Your task to perform on an android device: open chrome privacy settings Image 0: 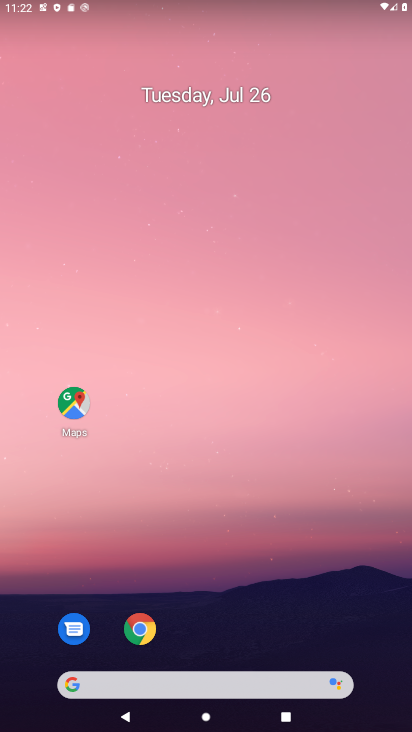
Step 0: drag from (240, 657) to (264, 33)
Your task to perform on an android device: open chrome privacy settings Image 1: 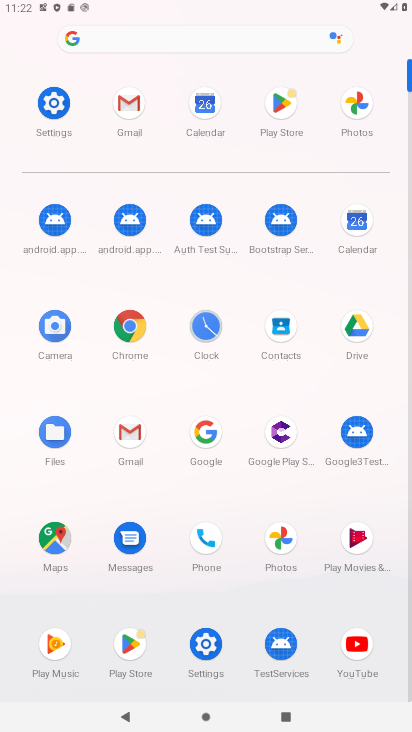
Step 1: click (46, 111)
Your task to perform on an android device: open chrome privacy settings Image 2: 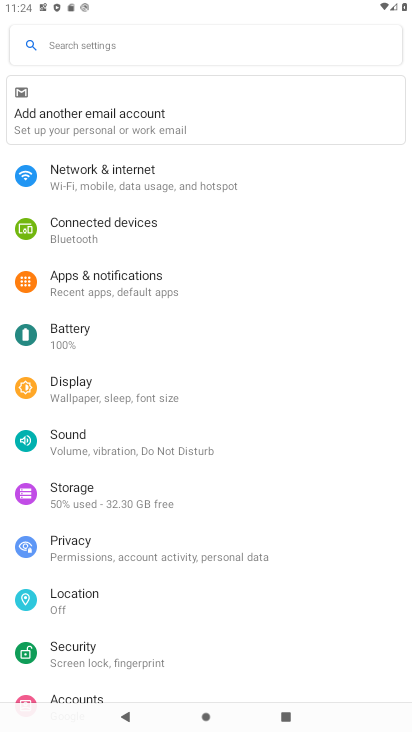
Step 2: press home button
Your task to perform on an android device: open chrome privacy settings Image 3: 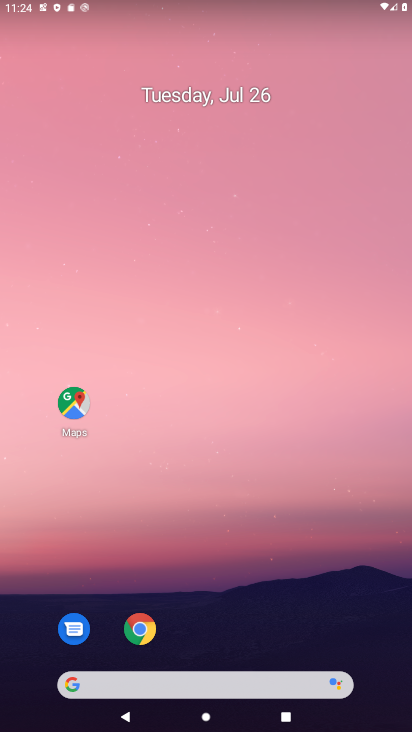
Step 3: click (143, 628)
Your task to perform on an android device: open chrome privacy settings Image 4: 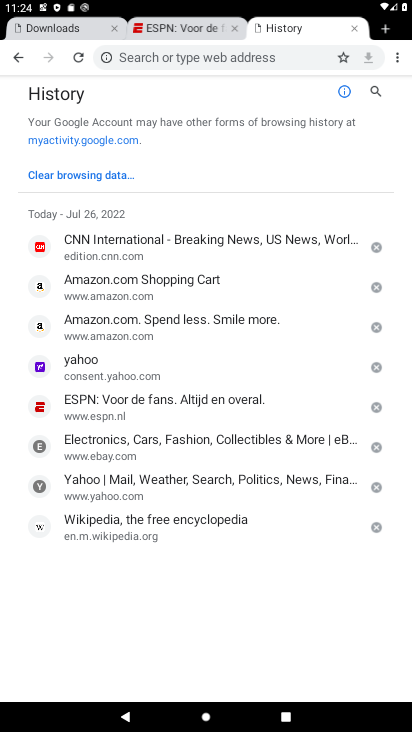
Step 4: click (387, 35)
Your task to perform on an android device: open chrome privacy settings Image 5: 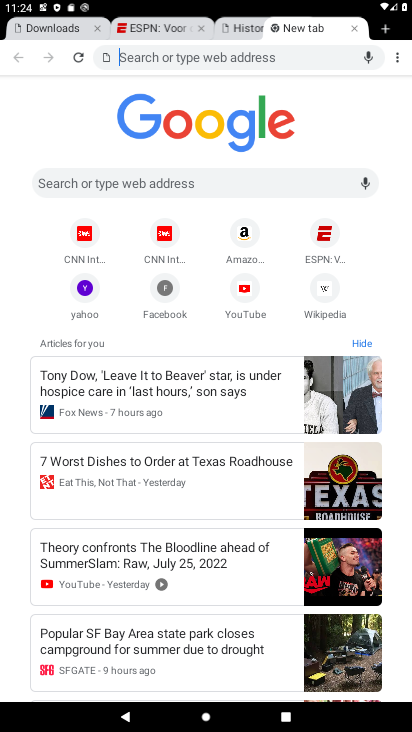
Step 5: click (404, 64)
Your task to perform on an android device: open chrome privacy settings Image 6: 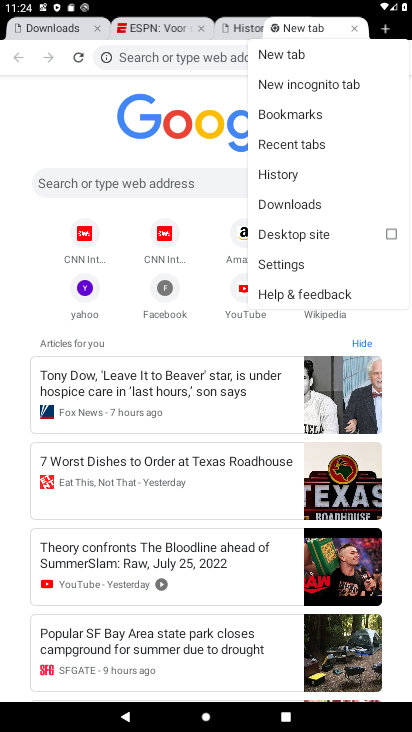
Step 6: click (275, 265)
Your task to perform on an android device: open chrome privacy settings Image 7: 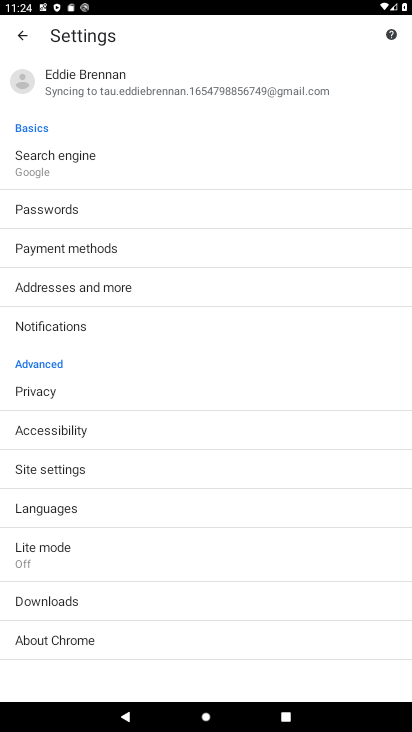
Step 7: click (79, 401)
Your task to perform on an android device: open chrome privacy settings Image 8: 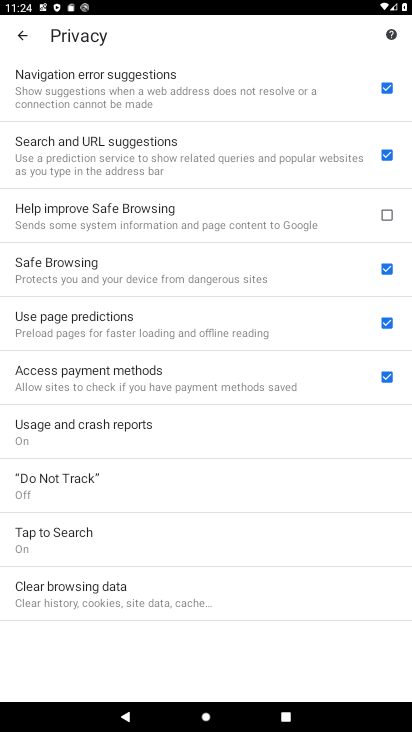
Step 8: task complete